Your task to perform on an android device: Is it going to rain today? Image 0: 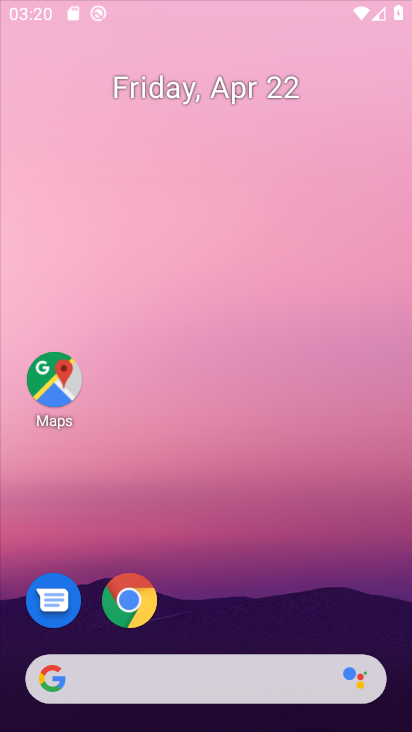
Step 0: drag from (193, 431) to (189, 240)
Your task to perform on an android device: Is it going to rain today? Image 1: 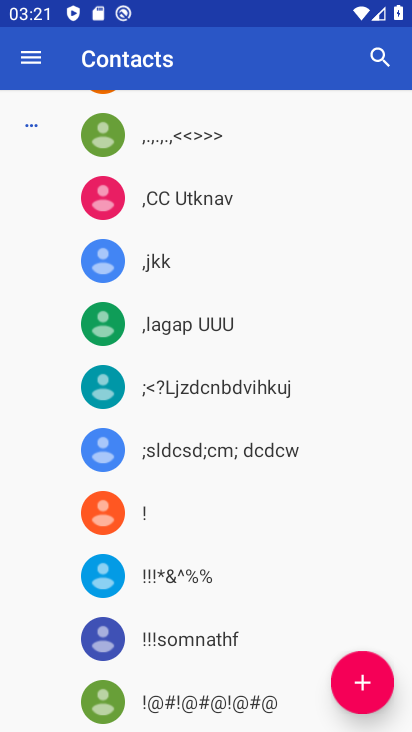
Step 1: press home button
Your task to perform on an android device: Is it going to rain today? Image 2: 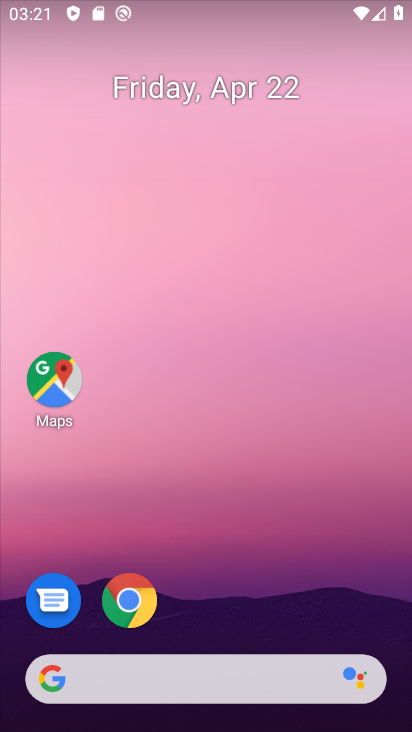
Step 2: drag from (189, 602) to (182, 160)
Your task to perform on an android device: Is it going to rain today? Image 3: 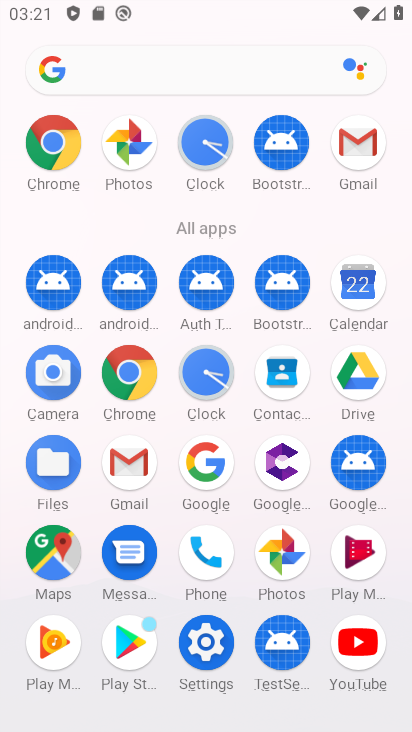
Step 3: click (198, 468)
Your task to perform on an android device: Is it going to rain today? Image 4: 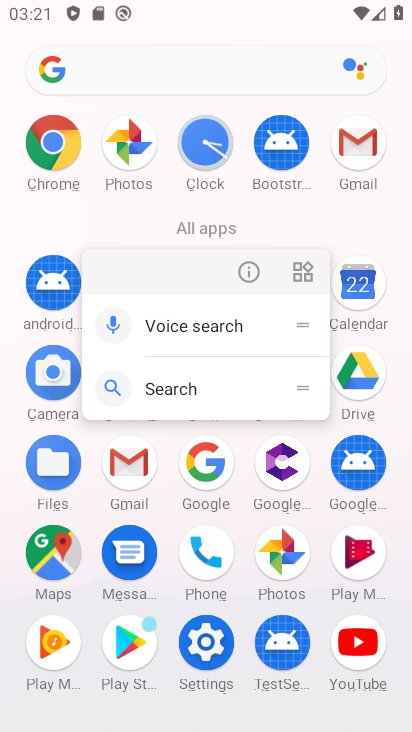
Step 4: click (204, 489)
Your task to perform on an android device: Is it going to rain today? Image 5: 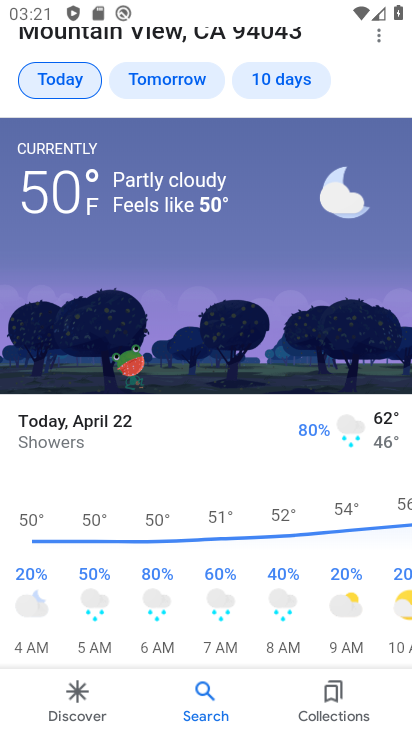
Step 5: task complete